Your task to perform on an android device: show emergency info Image 0: 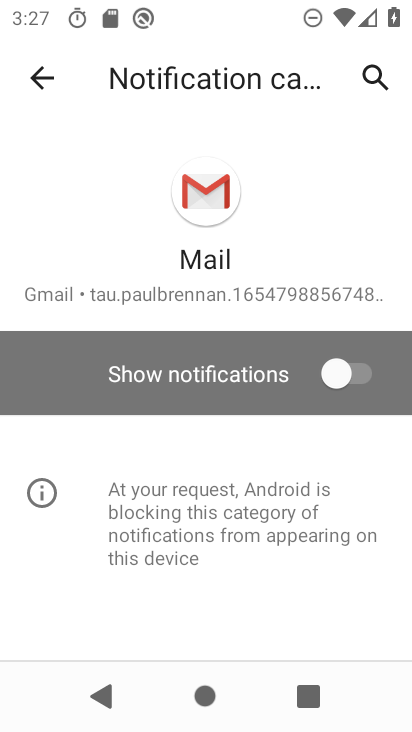
Step 0: press back button
Your task to perform on an android device: show emergency info Image 1: 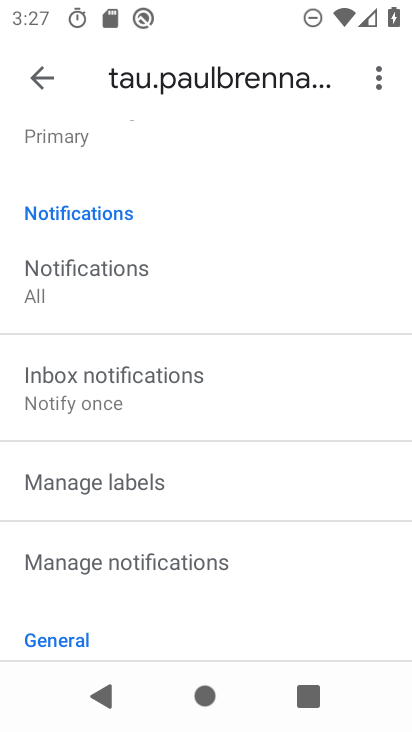
Step 1: press back button
Your task to perform on an android device: show emergency info Image 2: 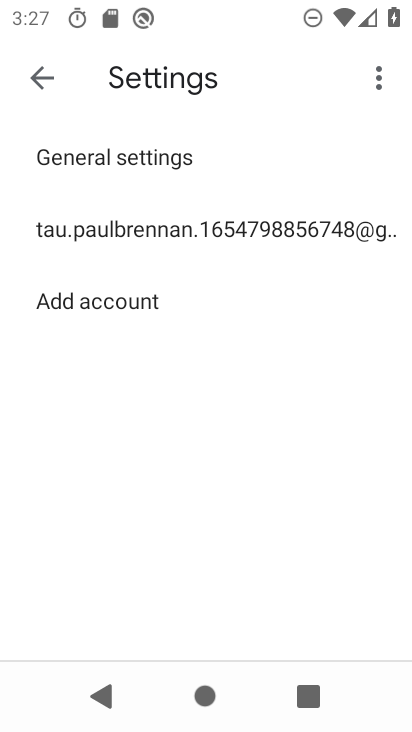
Step 2: press back button
Your task to perform on an android device: show emergency info Image 3: 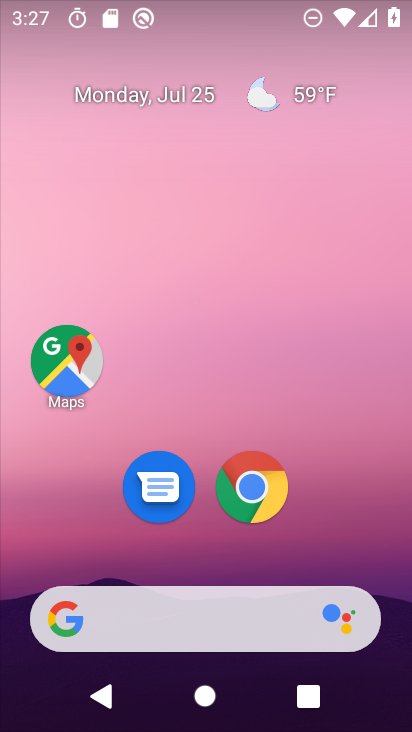
Step 3: drag from (148, 520) to (291, 13)
Your task to perform on an android device: show emergency info Image 4: 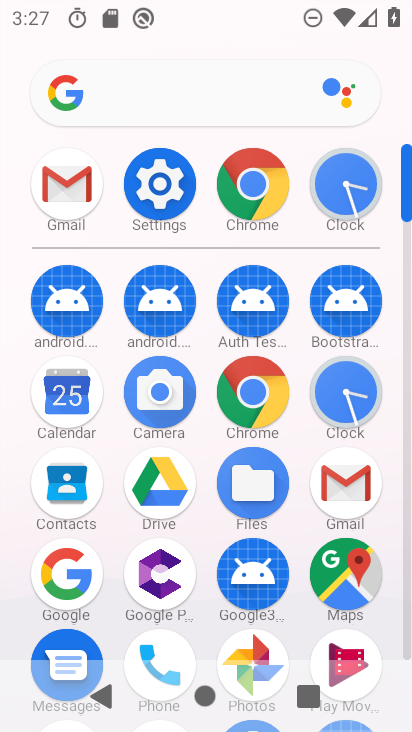
Step 4: click (144, 190)
Your task to perform on an android device: show emergency info Image 5: 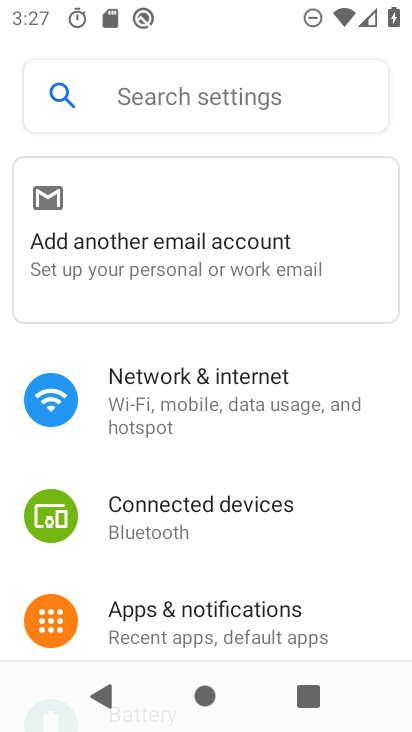
Step 5: drag from (206, 580) to (265, 1)
Your task to perform on an android device: show emergency info Image 6: 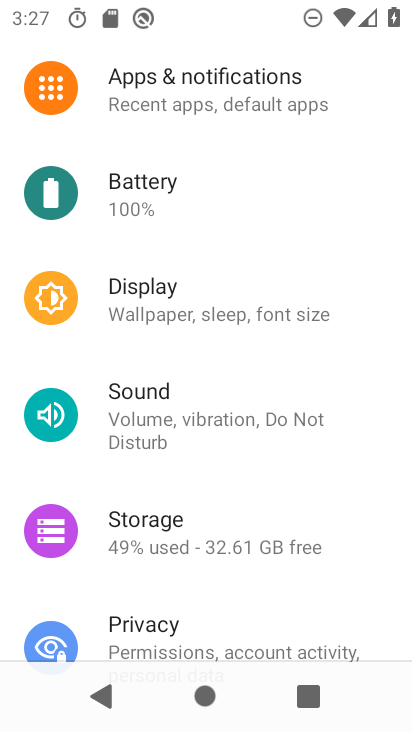
Step 6: drag from (212, 196) to (174, 665)
Your task to perform on an android device: show emergency info Image 7: 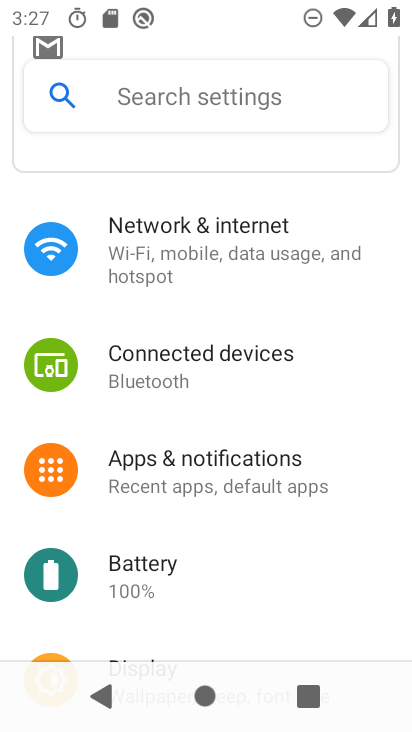
Step 7: drag from (154, 580) to (236, 154)
Your task to perform on an android device: show emergency info Image 8: 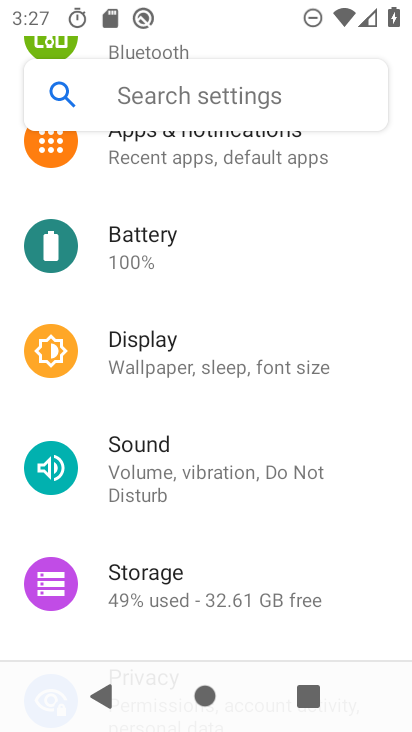
Step 8: drag from (166, 576) to (311, 3)
Your task to perform on an android device: show emergency info Image 9: 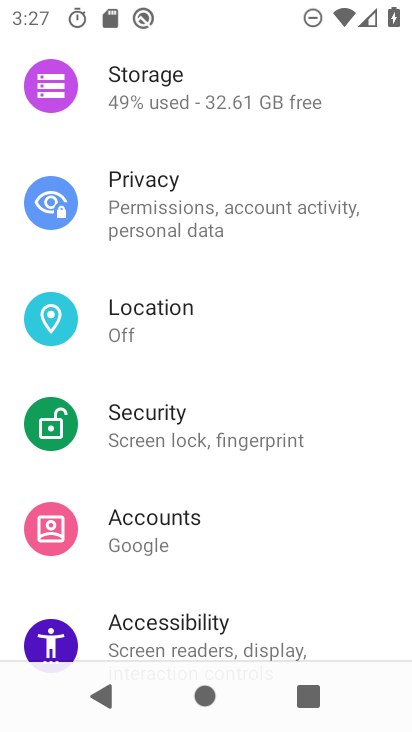
Step 9: drag from (162, 606) to (324, 1)
Your task to perform on an android device: show emergency info Image 10: 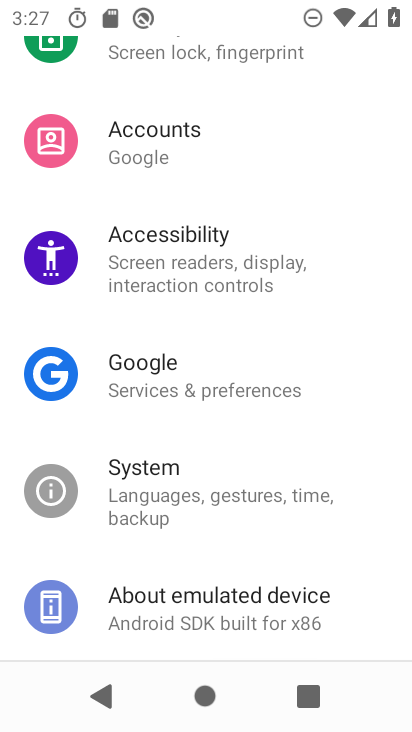
Step 10: click (150, 609)
Your task to perform on an android device: show emergency info Image 11: 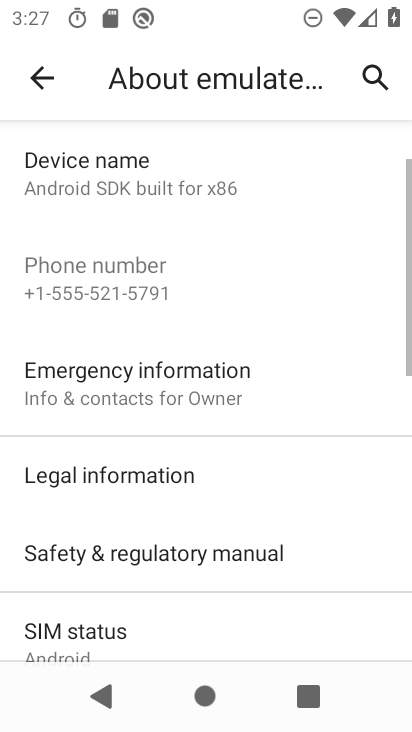
Step 11: click (151, 387)
Your task to perform on an android device: show emergency info Image 12: 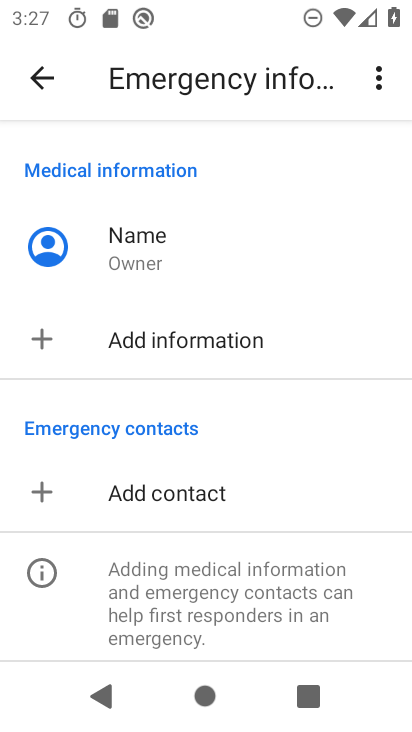
Step 12: task complete